Your task to perform on an android device: open a bookmark in the chrome app Image 0: 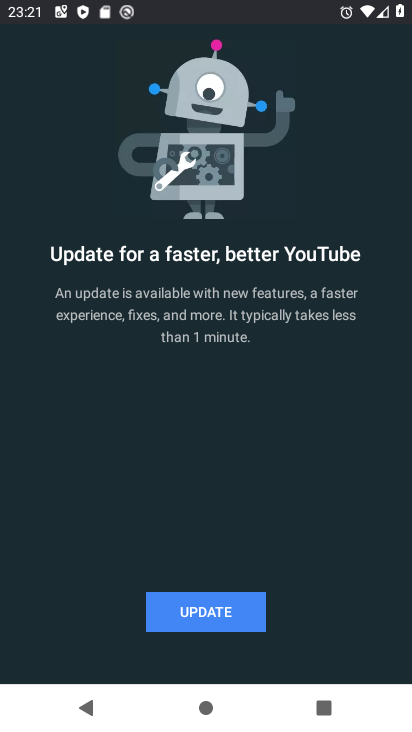
Step 0: press home button
Your task to perform on an android device: open a bookmark in the chrome app Image 1: 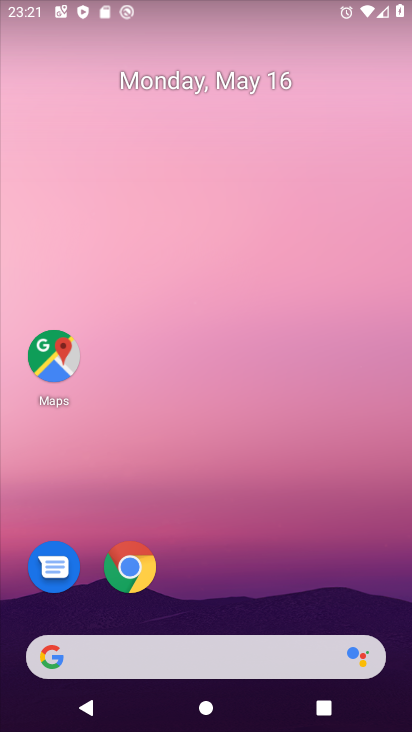
Step 1: click (123, 566)
Your task to perform on an android device: open a bookmark in the chrome app Image 2: 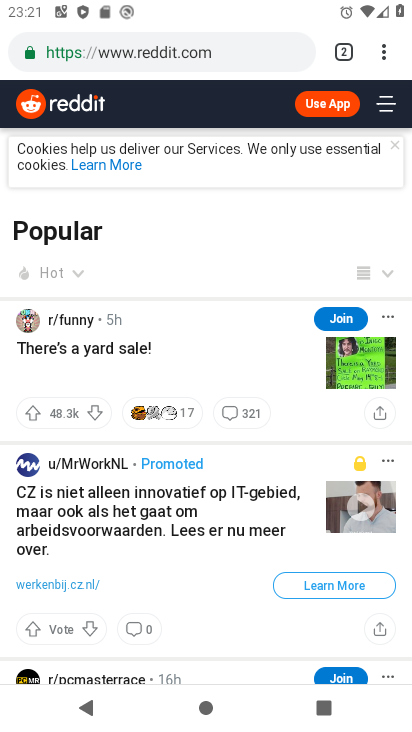
Step 2: click (382, 49)
Your task to perform on an android device: open a bookmark in the chrome app Image 3: 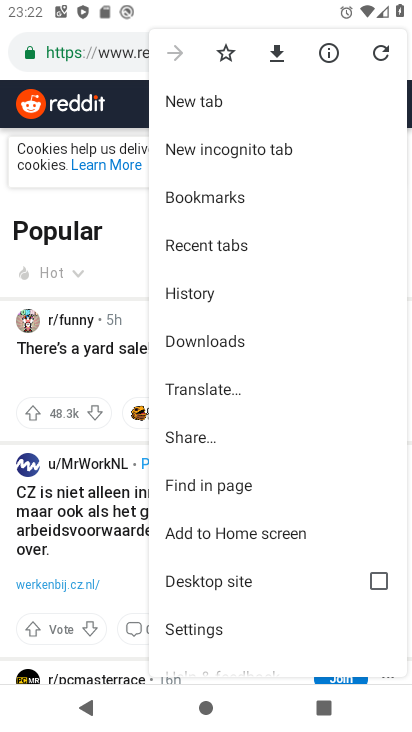
Step 3: click (221, 197)
Your task to perform on an android device: open a bookmark in the chrome app Image 4: 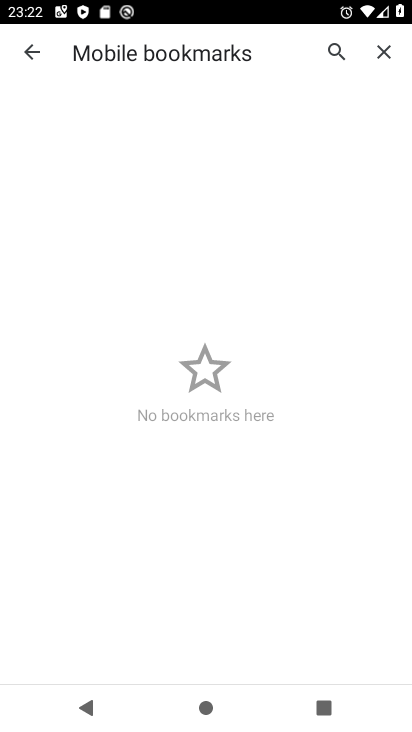
Step 4: task complete